Your task to perform on an android device: toggle notification dots Image 0: 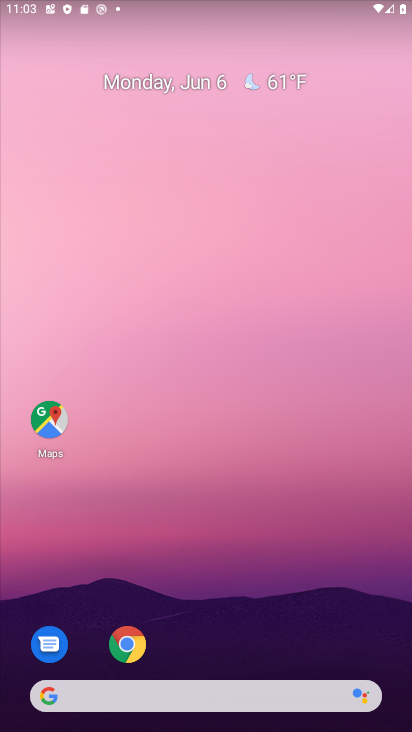
Step 0: press home button
Your task to perform on an android device: toggle notification dots Image 1: 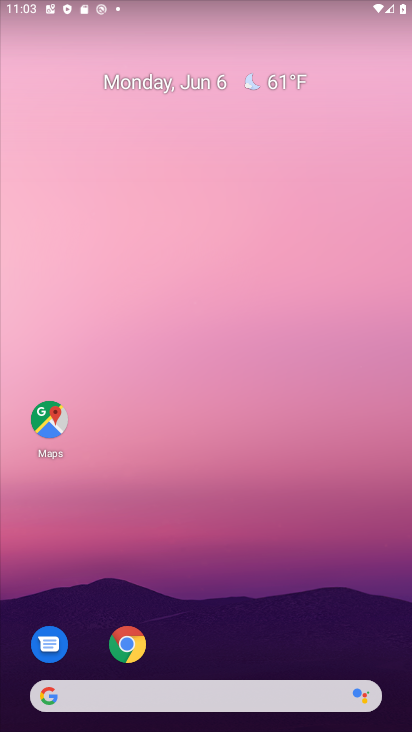
Step 1: drag from (179, 687) to (275, 134)
Your task to perform on an android device: toggle notification dots Image 2: 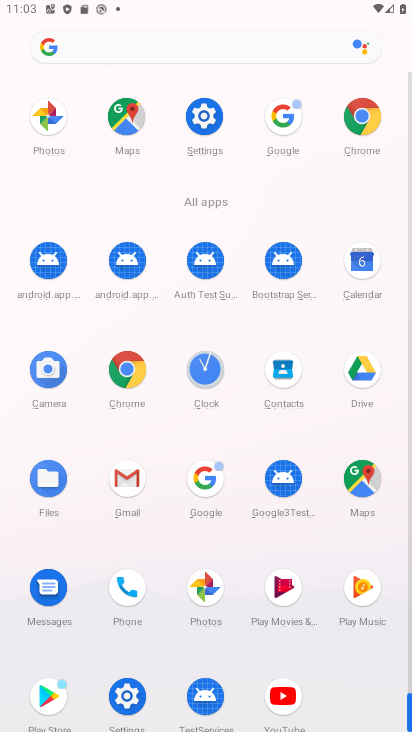
Step 2: click (218, 118)
Your task to perform on an android device: toggle notification dots Image 3: 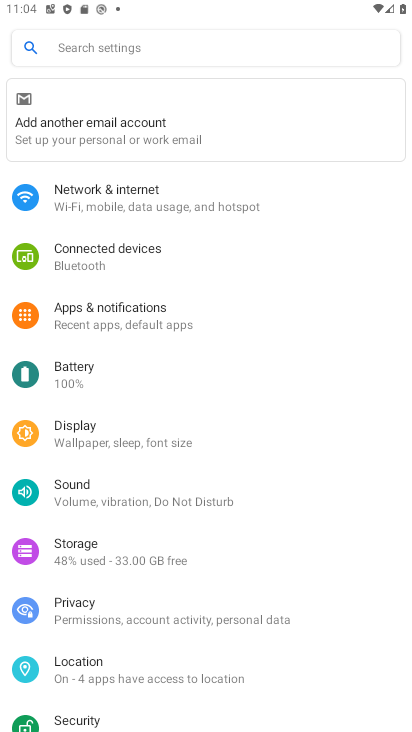
Step 3: click (211, 323)
Your task to perform on an android device: toggle notification dots Image 4: 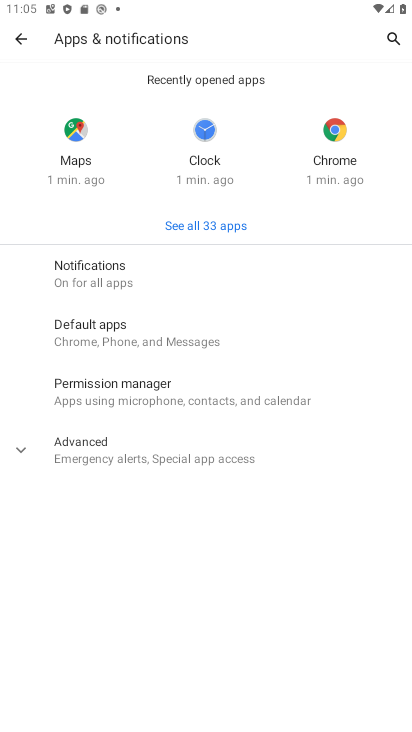
Step 4: click (179, 459)
Your task to perform on an android device: toggle notification dots Image 5: 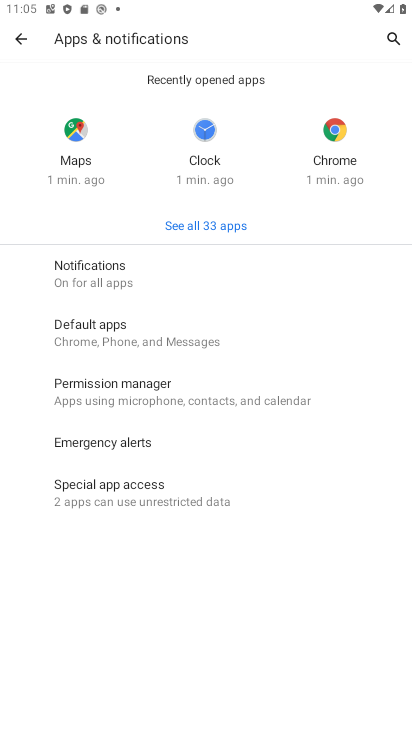
Step 5: click (159, 278)
Your task to perform on an android device: toggle notification dots Image 6: 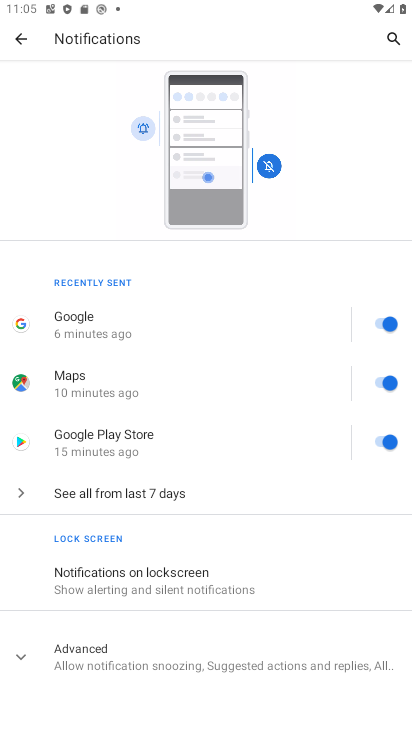
Step 6: drag from (151, 611) to (274, 118)
Your task to perform on an android device: toggle notification dots Image 7: 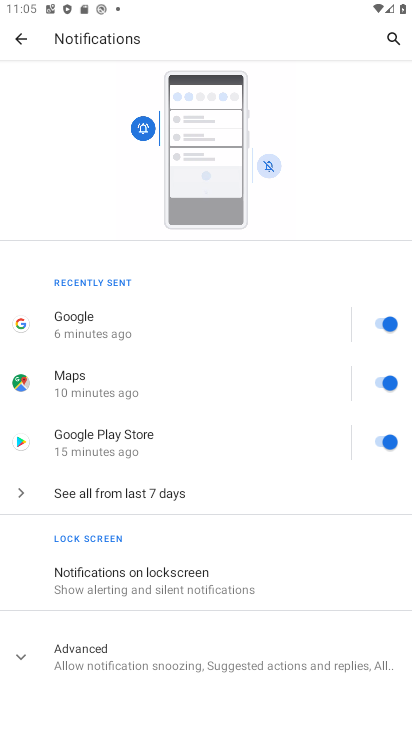
Step 7: click (201, 660)
Your task to perform on an android device: toggle notification dots Image 8: 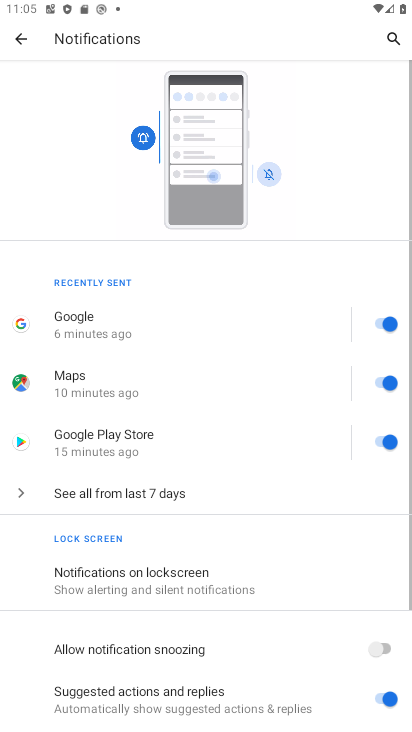
Step 8: drag from (201, 642) to (253, 229)
Your task to perform on an android device: toggle notification dots Image 9: 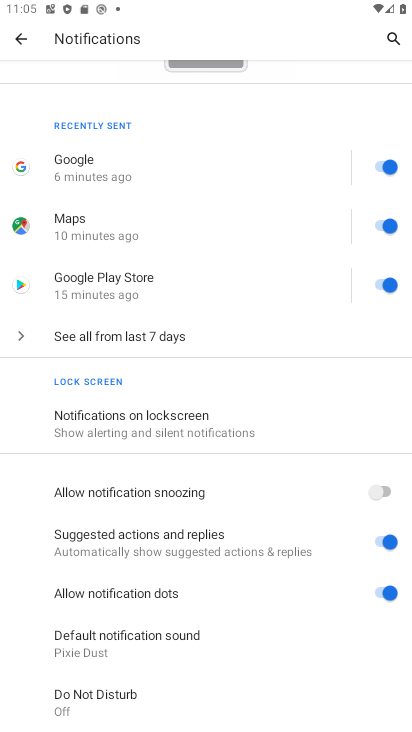
Step 9: click (130, 594)
Your task to perform on an android device: toggle notification dots Image 10: 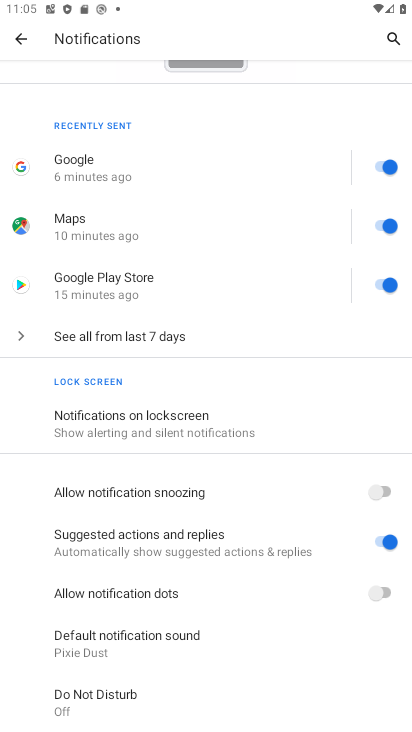
Step 10: task complete